Your task to perform on an android device: Go to wifi settings Image 0: 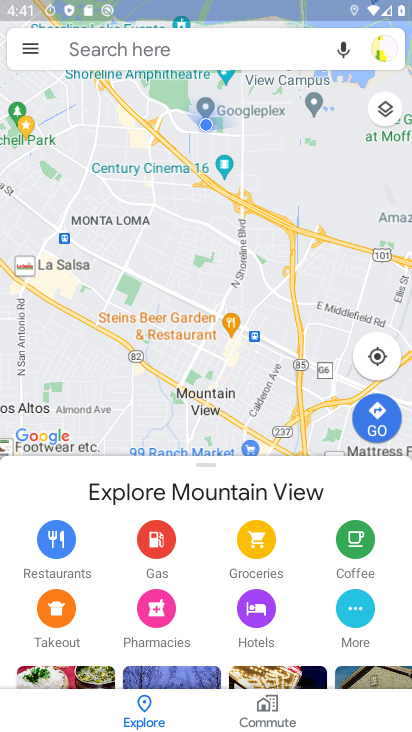
Step 0: press home button
Your task to perform on an android device: Go to wifi settings Image 1: 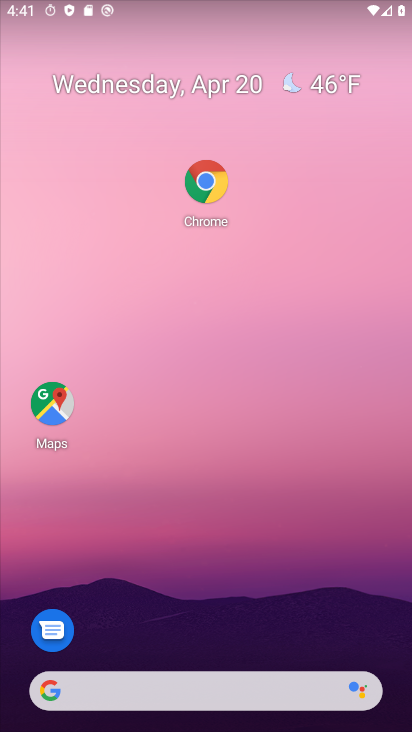
Step 1: drag from (197, 664) to (304, 280)
Your task to perform on an android device: Go to wifi settings Image 2: 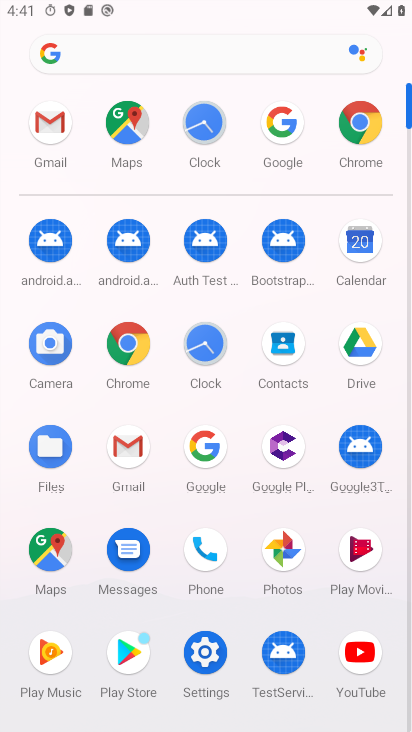
Step 2: click (198, 655)
Your task to perform on an android device: Go to wifi settings Image 3: 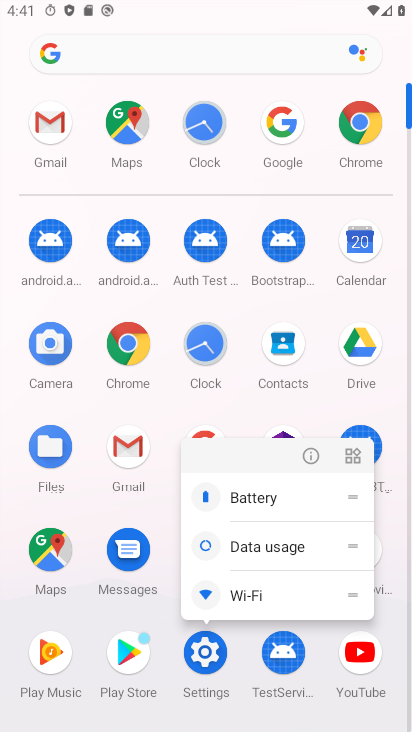
Step 3: click (201, 654)
Your task to perform on an android device: Go to wifi settings Image 4: 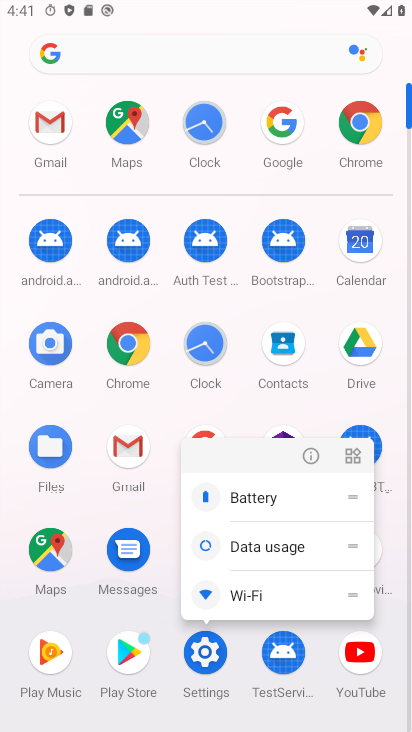
Step 4: click (205, 648)
Your task to perform on an android device: Go to wifi settings Image 5: 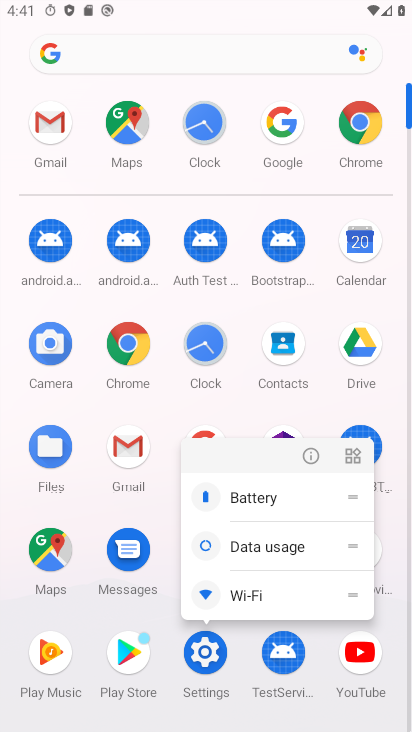
Step 5: click (205, 648)
Your task to perform on an android device: Go to wifi settings Image 6: 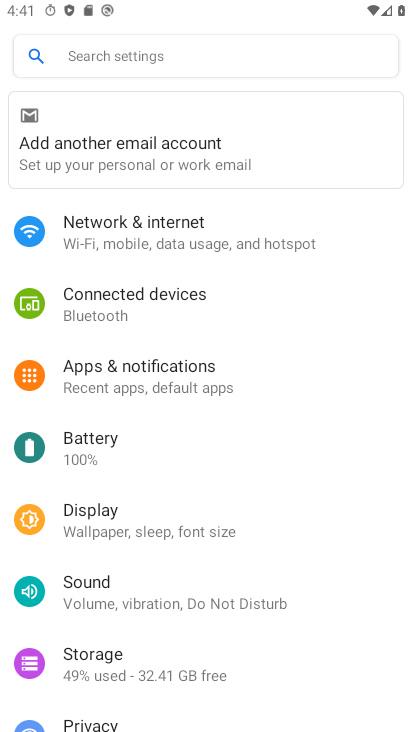
Step 6: click (112, 208)
Your task to perform on an android device: Go to wifi settings Image 7: 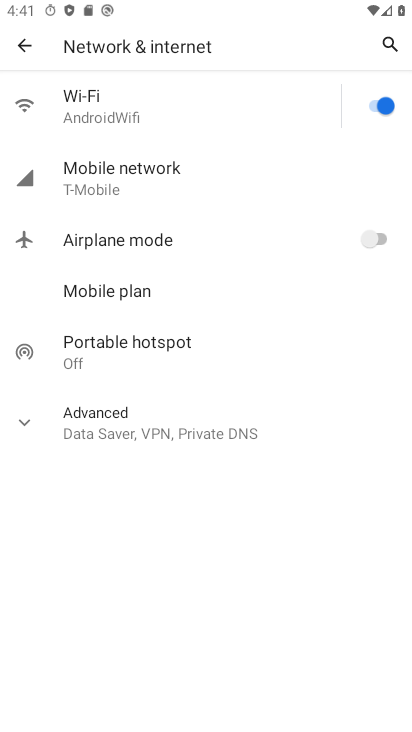
Step 7: click (127, 106)
Your task to perform on an android device: Go to wifi settings Image 8: 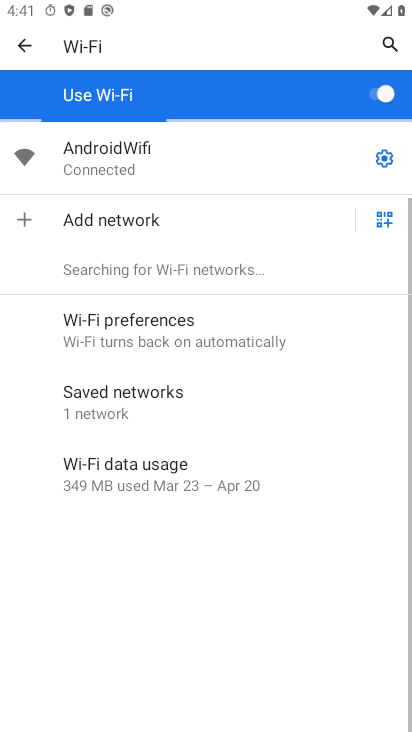
Step 8: click (390, 156)
Your task to perform on an android device: Go to wifi settings Image 9: 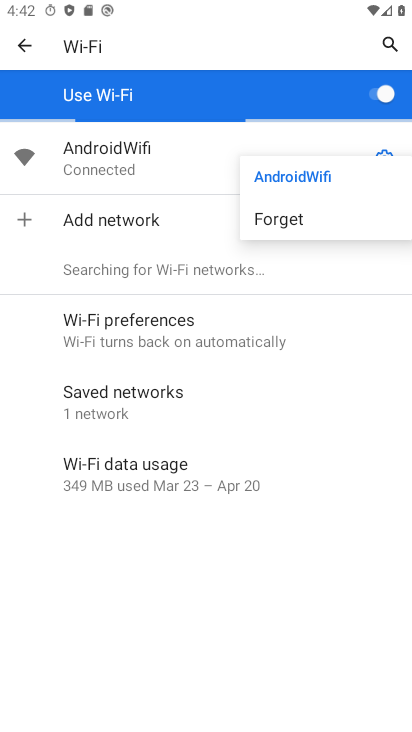
Step 9: click (330, 447)
Your task to perform on an android device: Go to wifi settings Image 10: 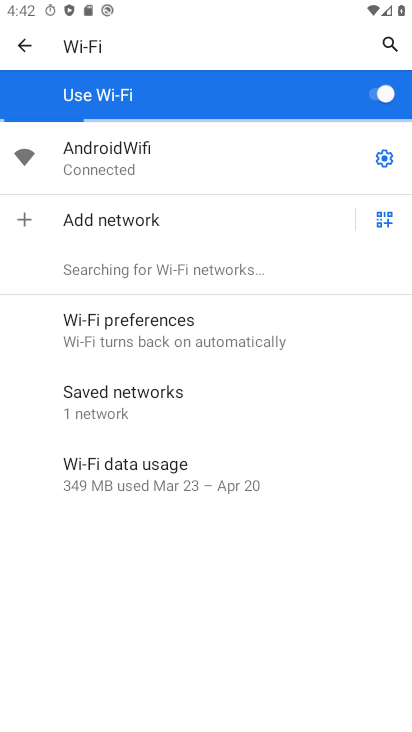
Step 10: click (387, 159)
Your task to perform on an android device: Go to wifi settings Image 11: 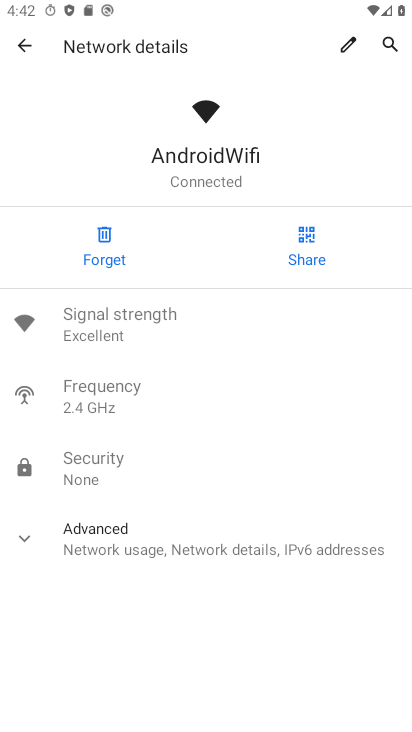
Step 11: click (165, 545)
Your task to perform on an android device: Go to wifi settings Image 12: 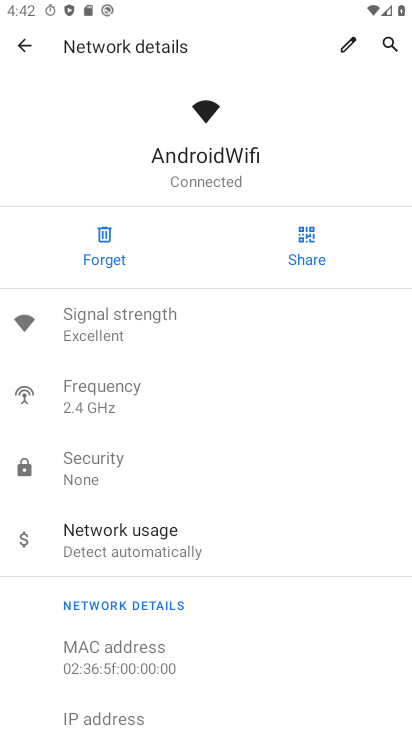
Step 12: task complete